Your task to perform on an android device: Open ESPN.com Image 0: 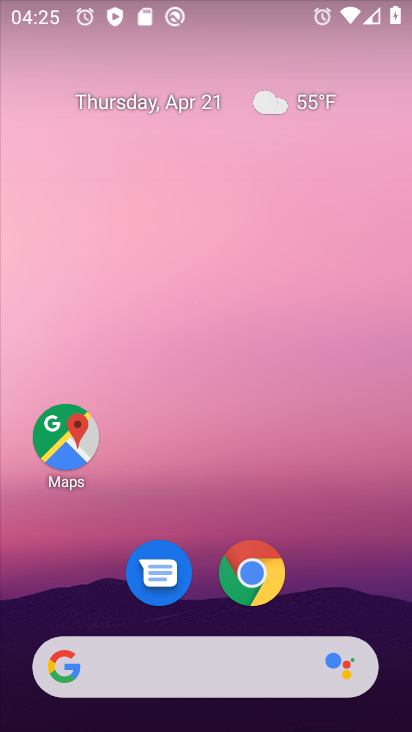
Step 0: click (252, 570)
Your task to perform on an android device: Open ESPN.com Image 1: 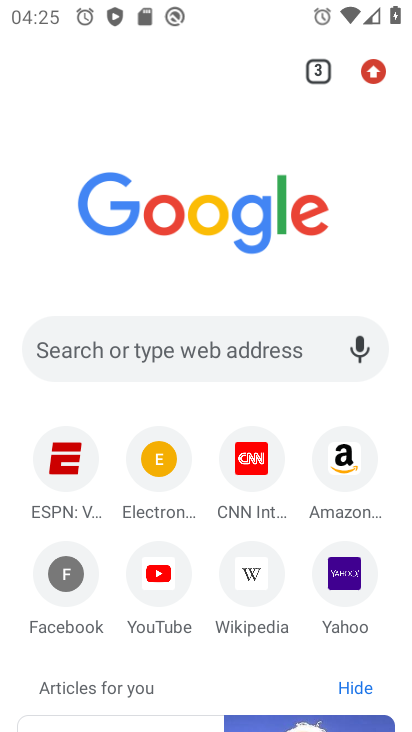
Step 1: click (105, 346)
Your task to perform on an android device: Open ESPN.com Image 2: 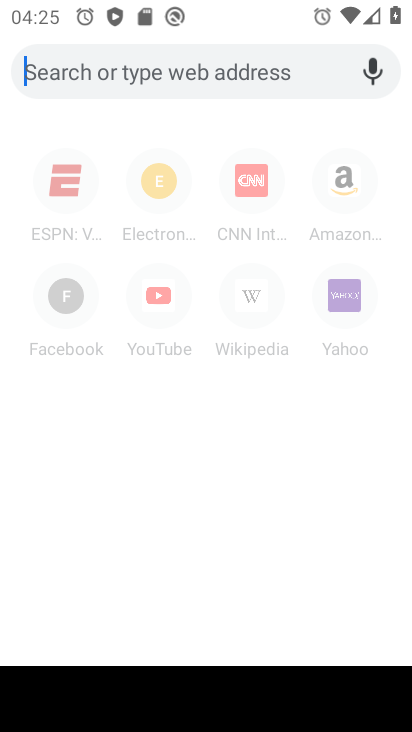
Step 2: type "espn.com"
Your task to perform on an android device: Open ESPN.com Image 3: 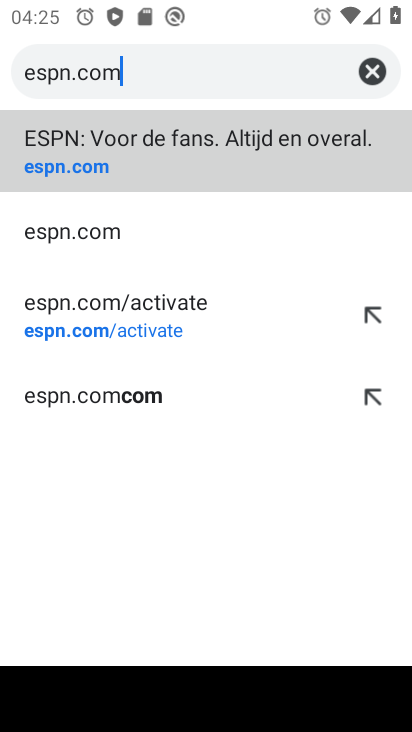
Step 3: click (92, 133)
Your task to perform on an android device: Open ESPN.com Image 4: 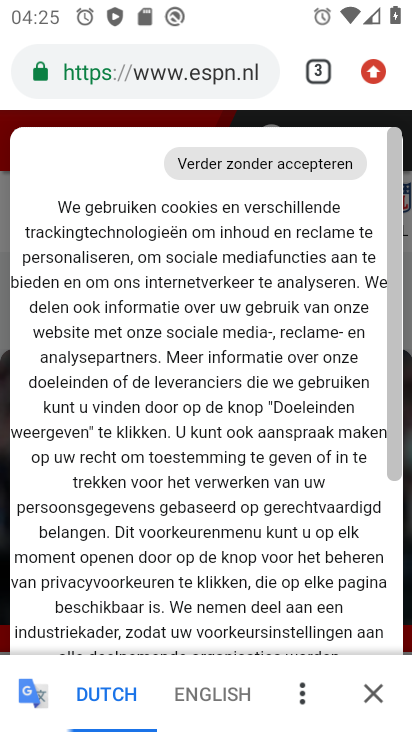
Step 4: task complete